Your task to perform on an android device: uninstall "Booking.com: Hotels and more" Image 0: 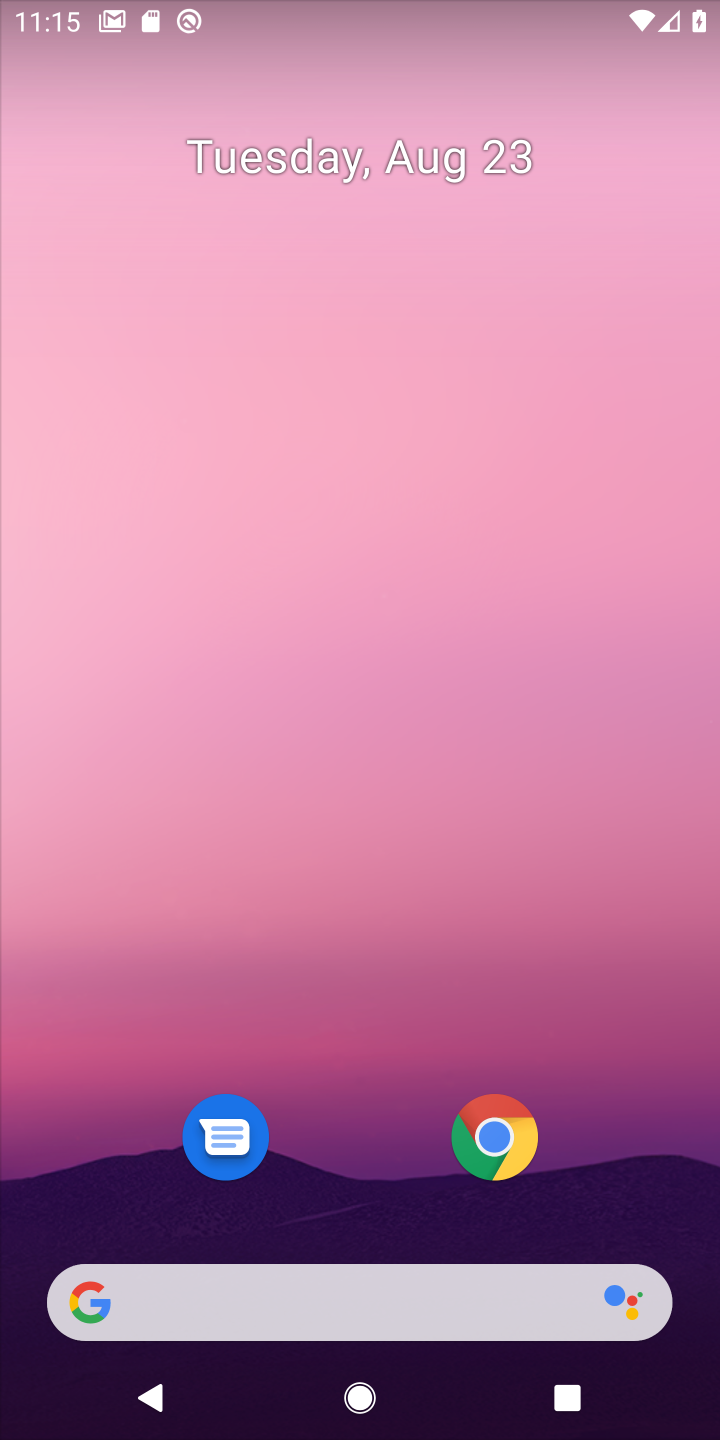
Step 0: drag from (360, 1169) to (341, 22)
Your task to perform on an android device: uninstall "Booking.com: Hotels and more" Image 1: 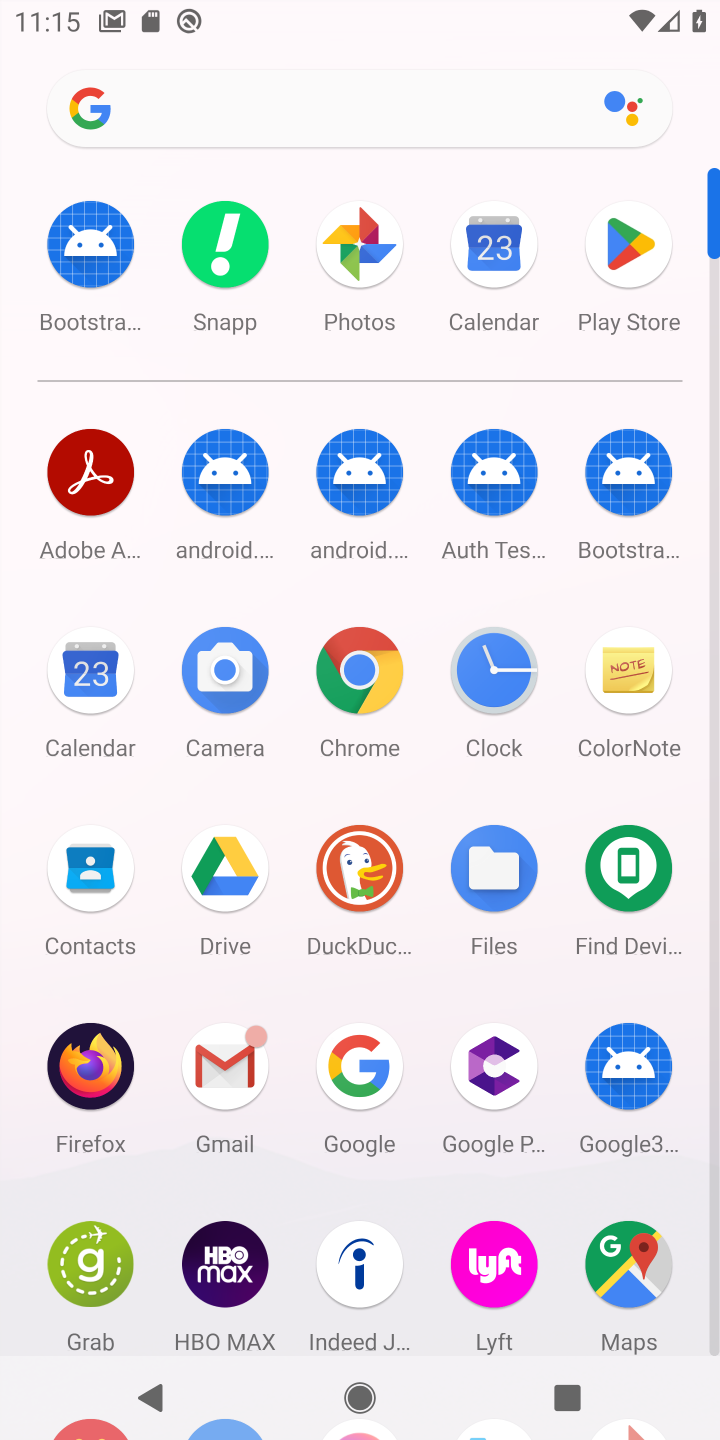
Step 1: click (629, 303)
Your task to perform on an android device: uninstall "Booking.com: Hotels and more" Image 2: 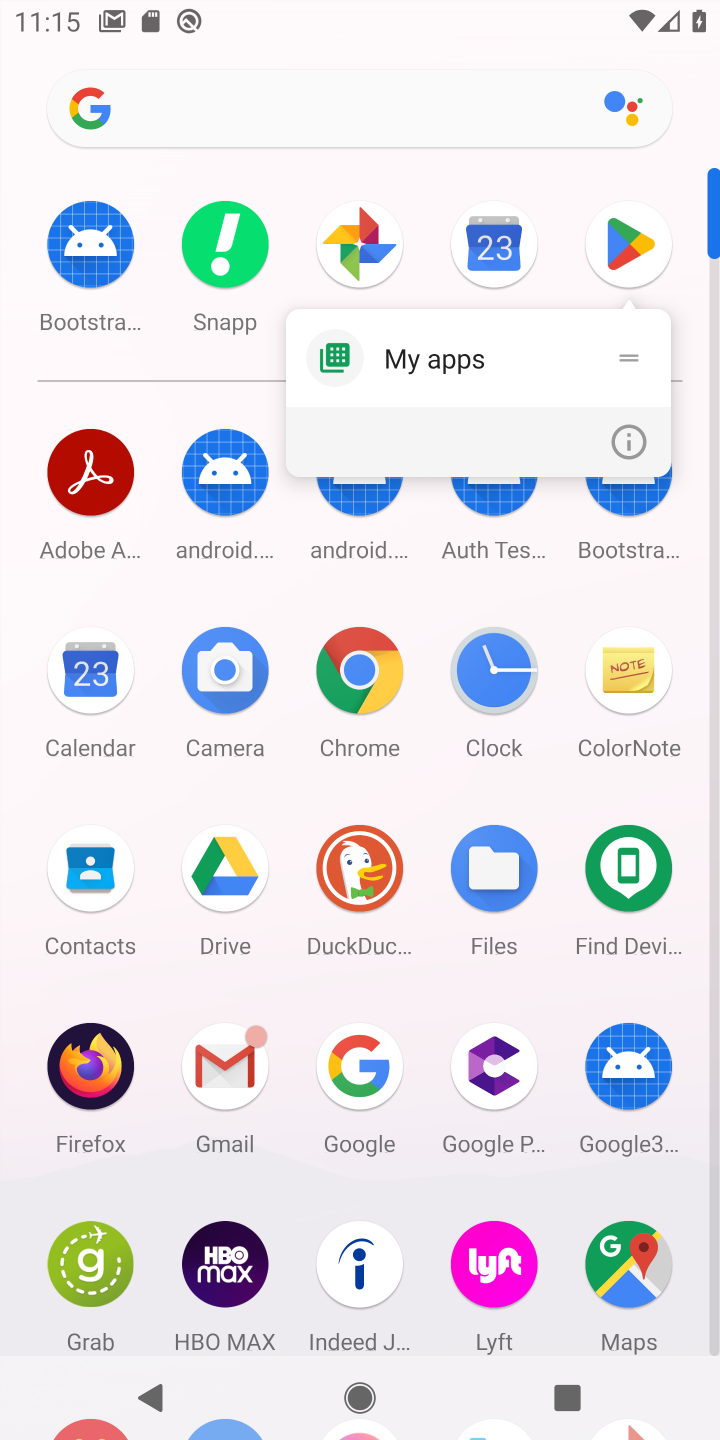
Step 2: click (645, 258)
Your task to perform on an android device: uninstall "Booking.com: Hotels and more" Image 3: 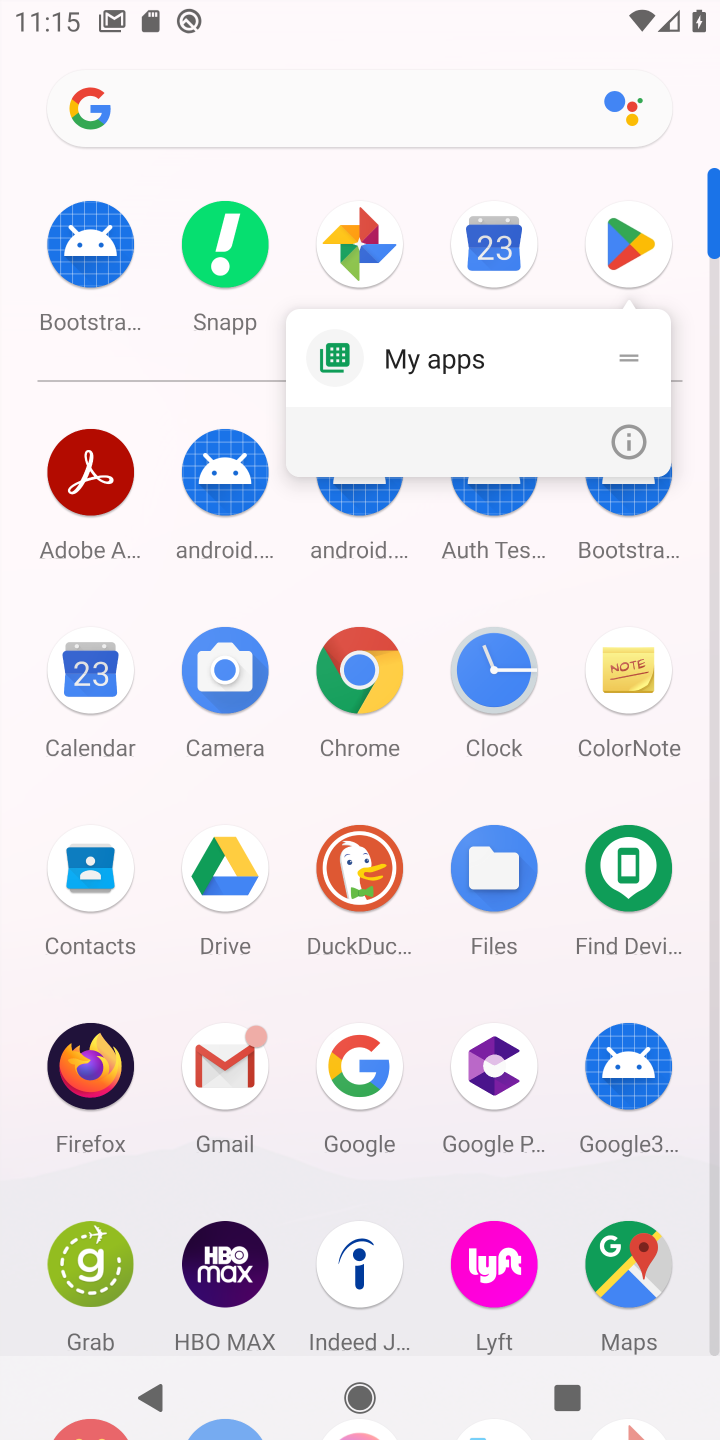
Step 3: click (625, 249)
Your task to perform on an android device: uninstall "Booking.com: Hotels and more" Image 4: 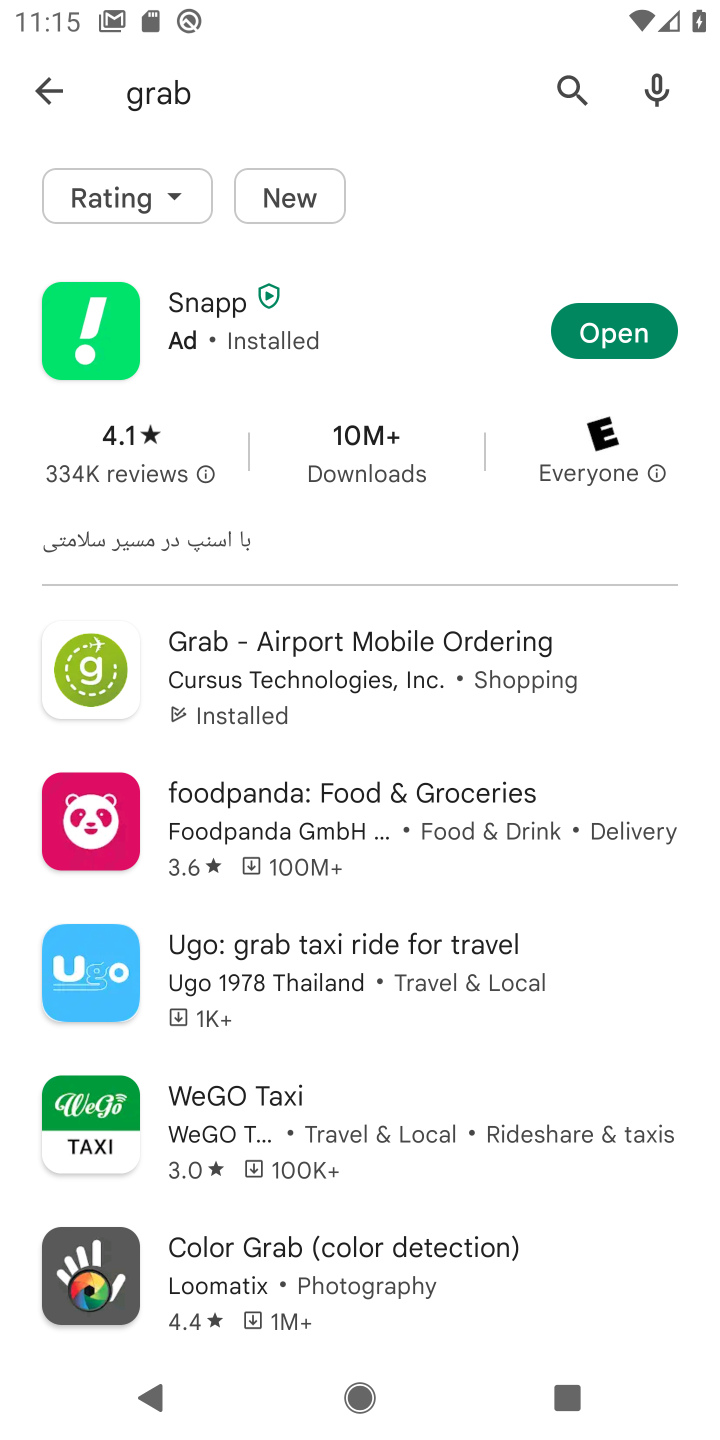
Step 4: click (228, 85)
Your task to perform on an android device: uninstall "Booking.com: Hotels and more" Image 5: 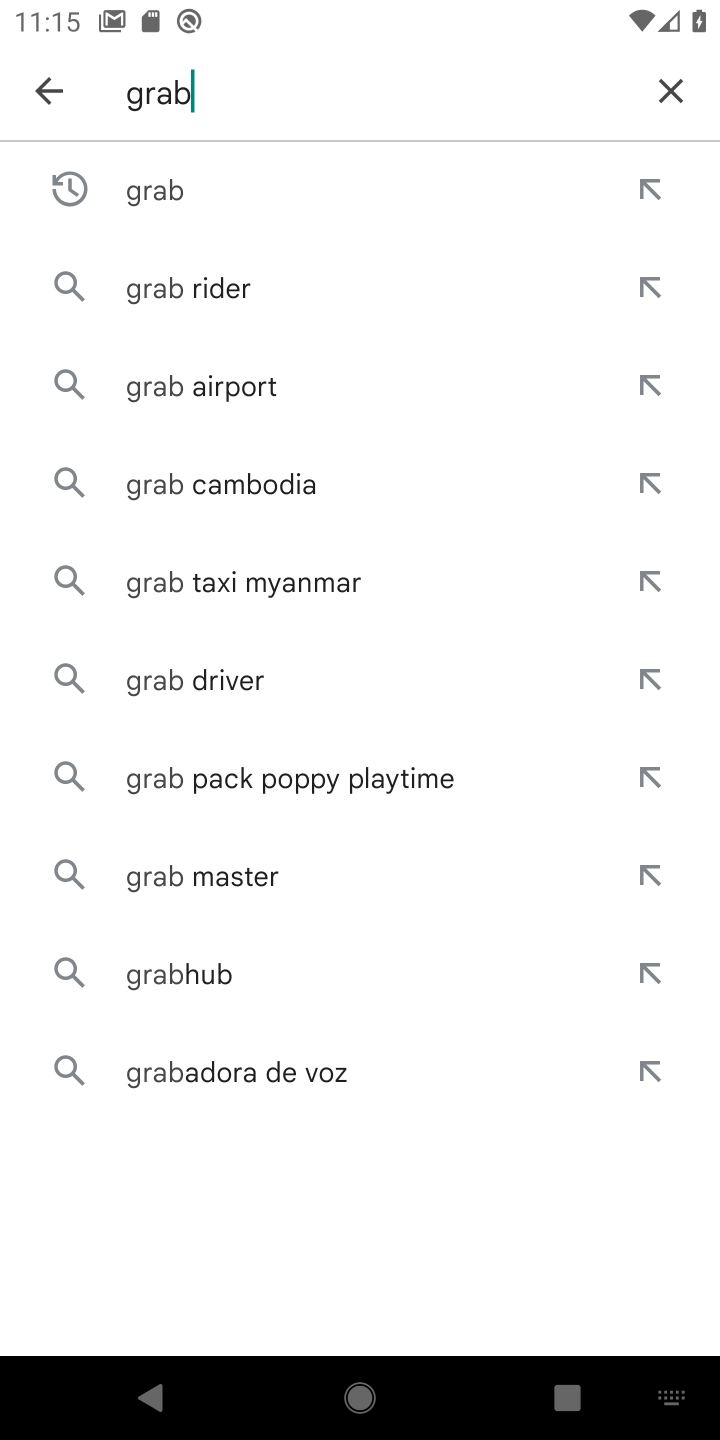
Step 5: click (659, 73)
Your task to perform on an android device: uninstall "Booking.com: Hotels and more" Image 6: 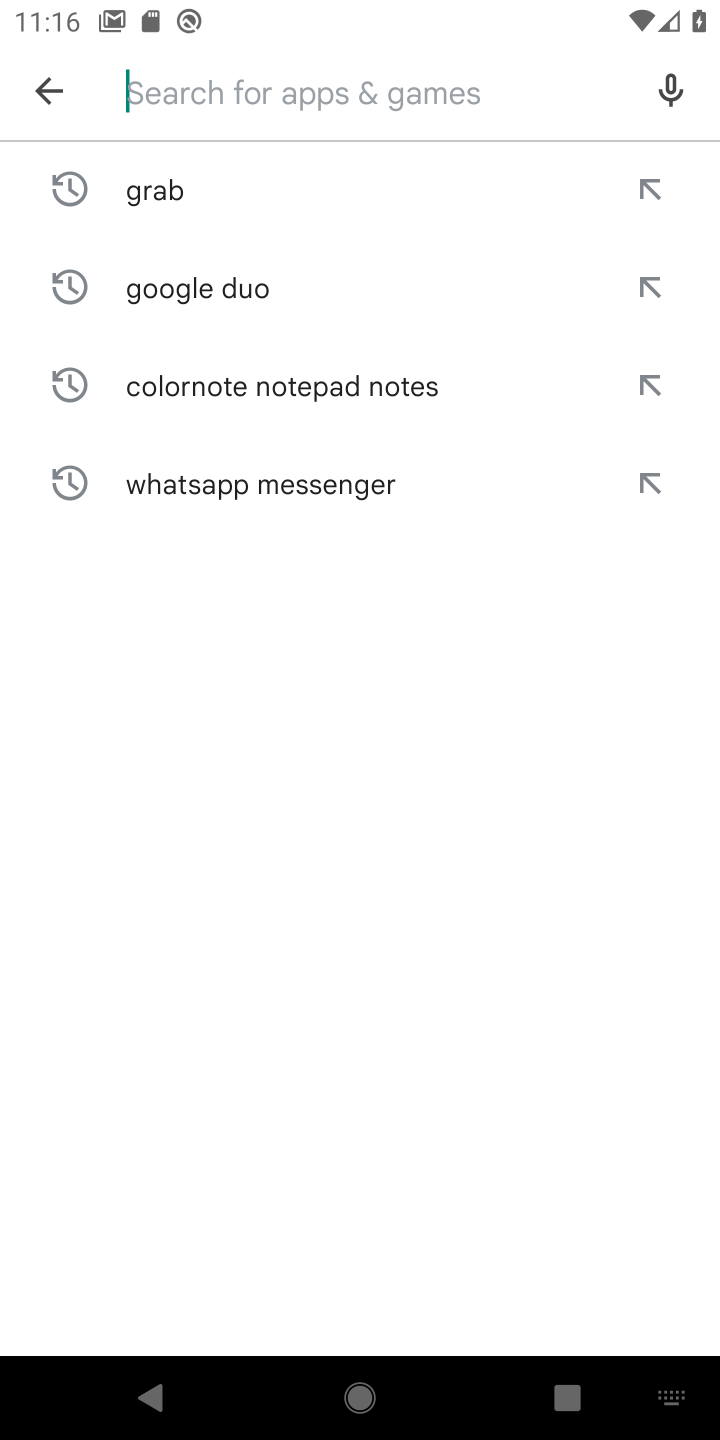
Step 6: type "booking.com"
Your task to perform on an android device: uninstall "Booking.com: Hotels and more" Image 7: 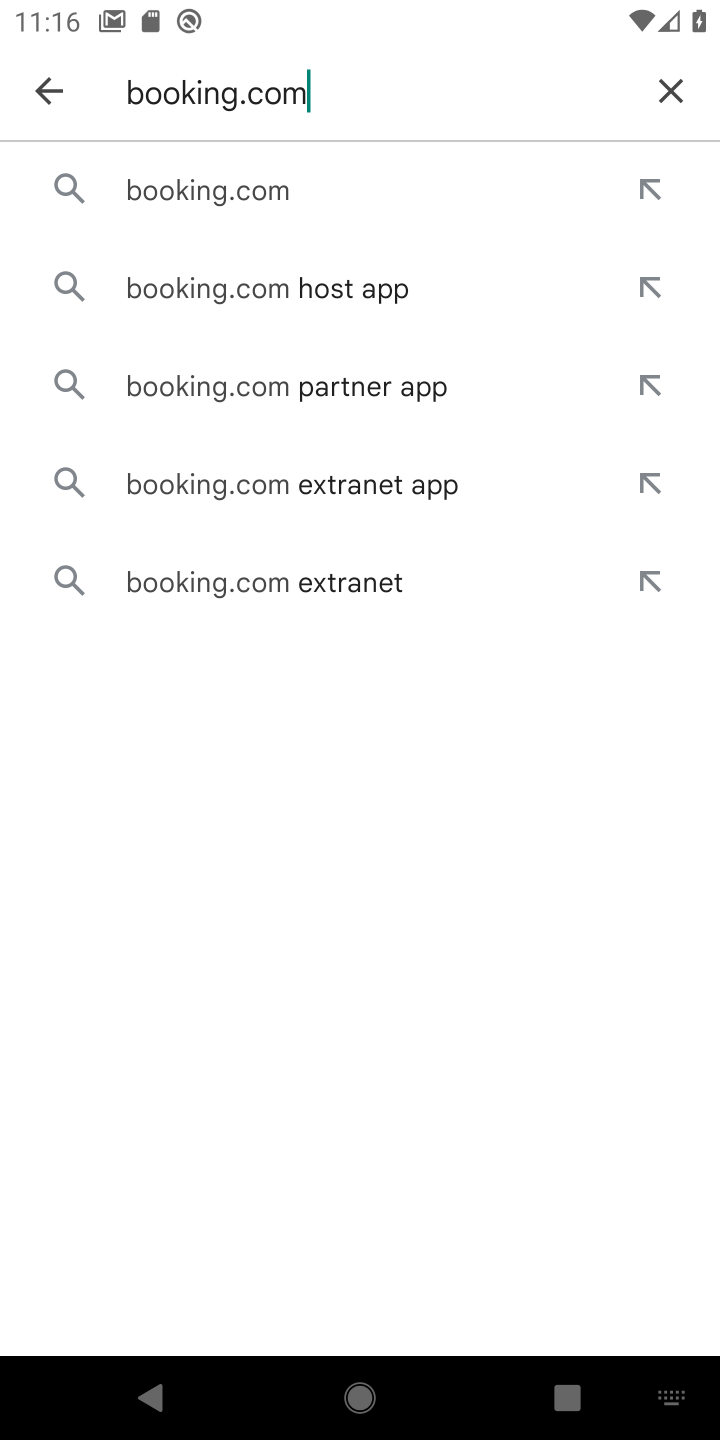
Step 7: click (161, 199)
Your task to perform on an android device: uninstall "Booking.com: Hotels and more" Image 8: 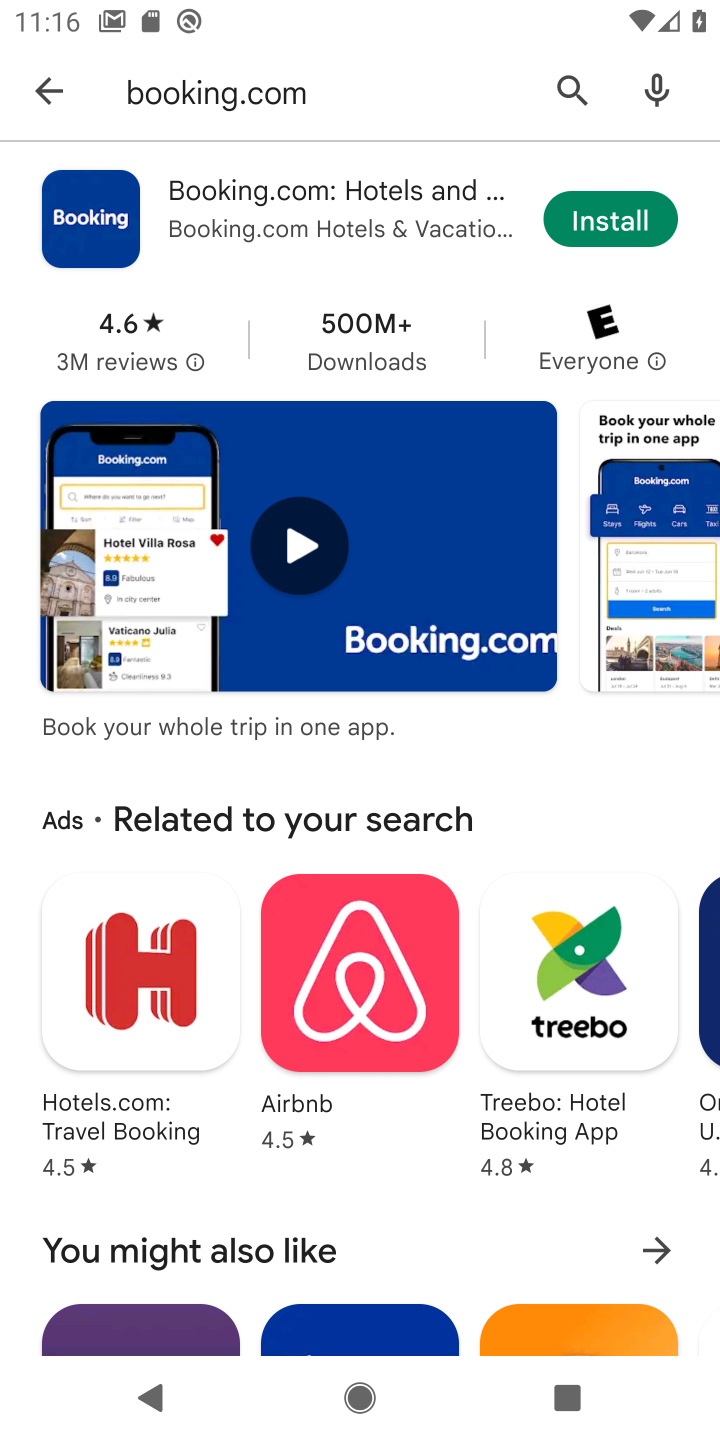
Step 8: task complete